Your task to perform on an android device: Go to Yahoo.com Image 0: 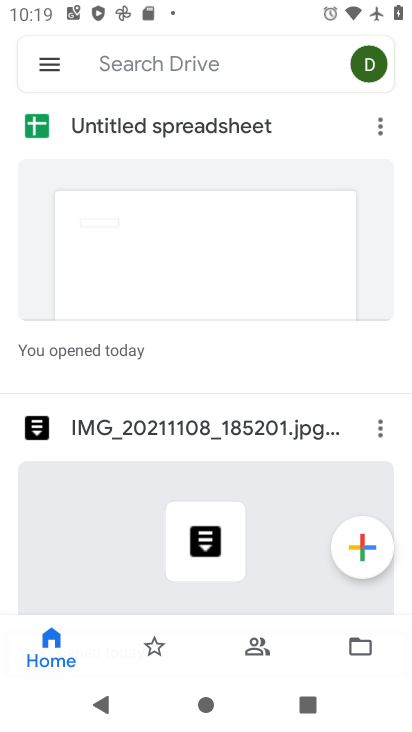
Step 0: press home button
Your task to perform on an android device: Go to Yahoo.com Image 1: 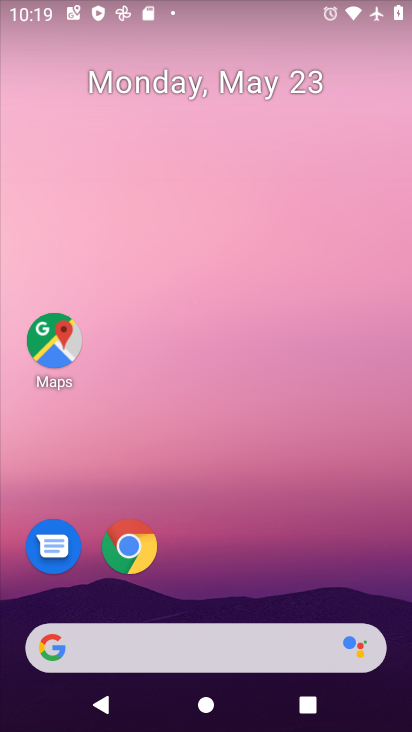
Step 1: click (132, 543)
Your task to perform on an android device: Go to Yahoo.com Image 2: 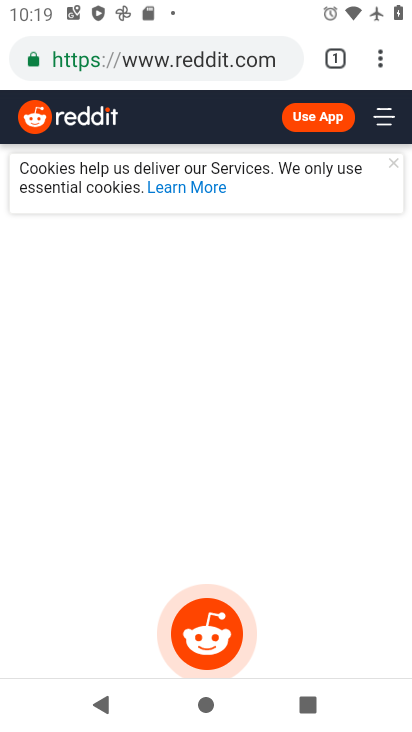
Step 2: click (173, 68)
Your task to perform on an android device: Go to Yahoo.com Image 3: 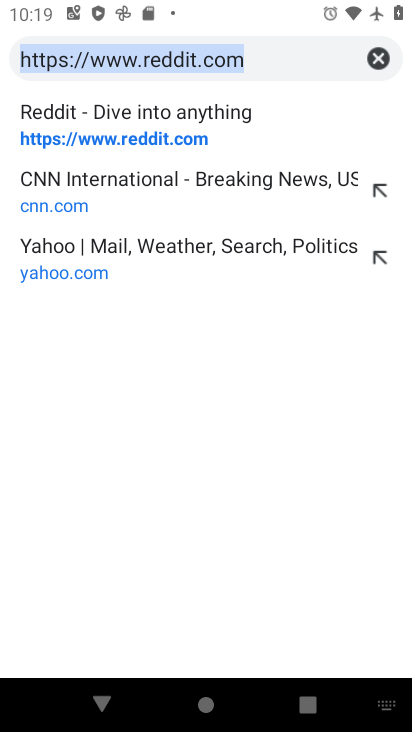
Step 3: click (181, 48)
Your task to perform on an android device: Go to Yahoo.com Image 4: 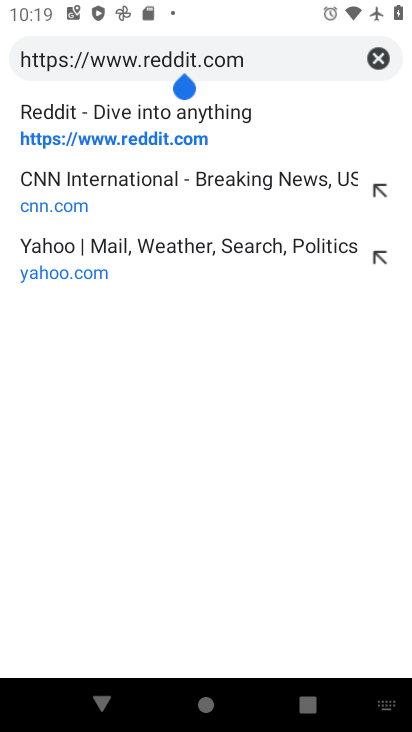
Step 4: click (373, 58)
Your task to perform on an android device: Go to Yahoo.com Image 5: 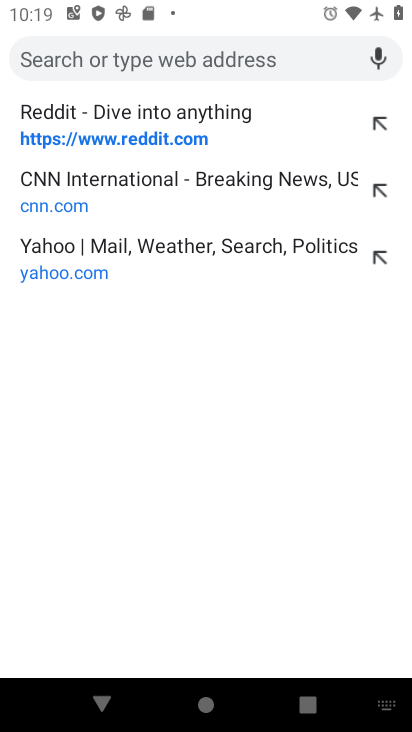
Step 5: type "yahoo.com"
Your task to perform on an android device: Go to Yahoo.com Image 6: 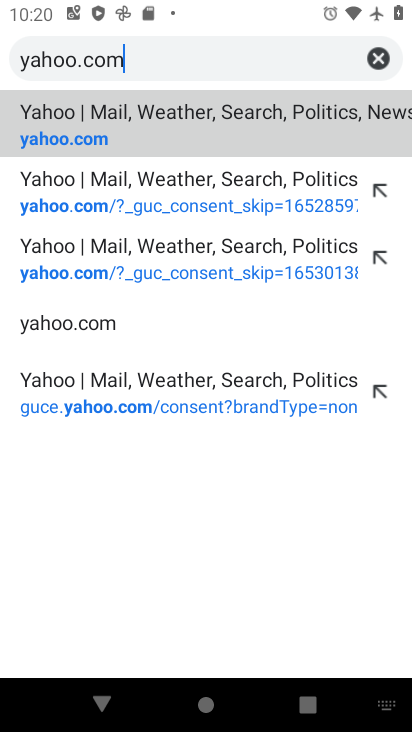
Step 6: click (102, 124)
Your task to perform on an android device: Go to Yahoo.com Image 7: 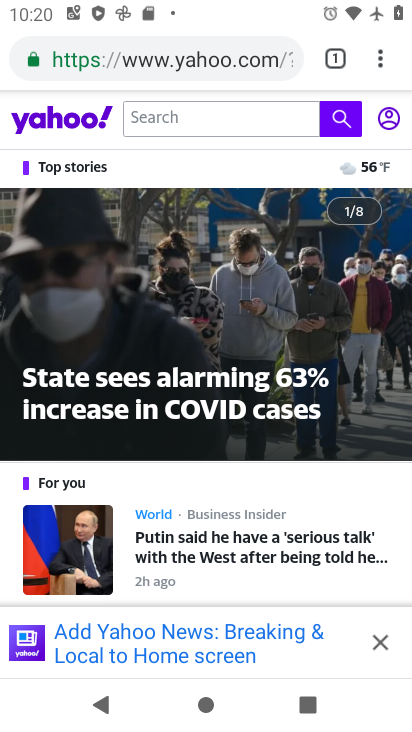
Step 7: task complete